Your task to perform on an android device: toggle notifications settings in the gmail app Image 0: 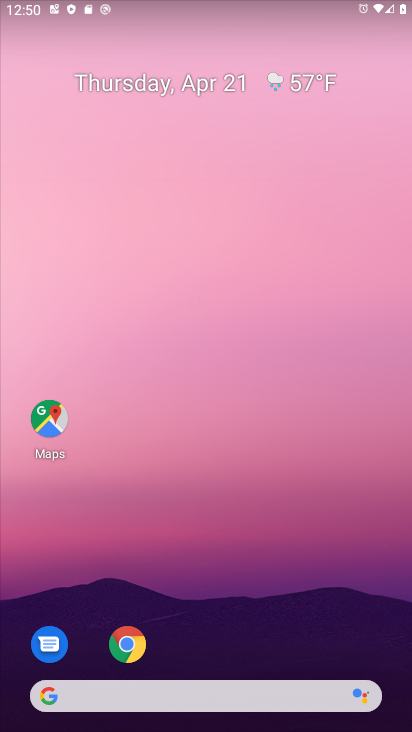
Step 0: drag from (189, 670) to (292, 18)
Your task to perform on an android device: toggle notifications settings in the gmail app Image 1: 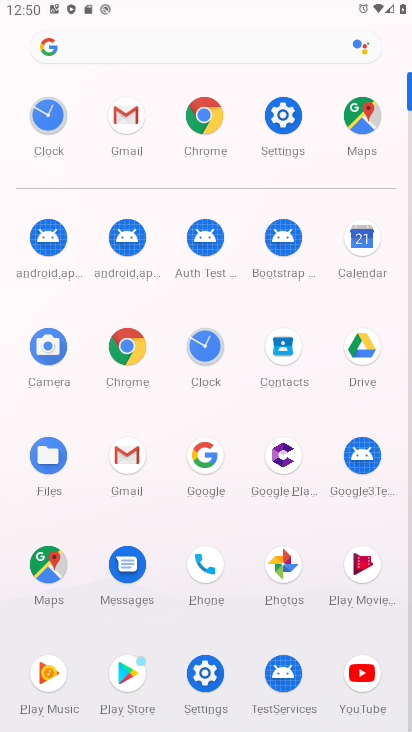
Step 1: click (125, 462)
Your task to perform on an android device: toggle notifications settings in the gmail app Image 2: 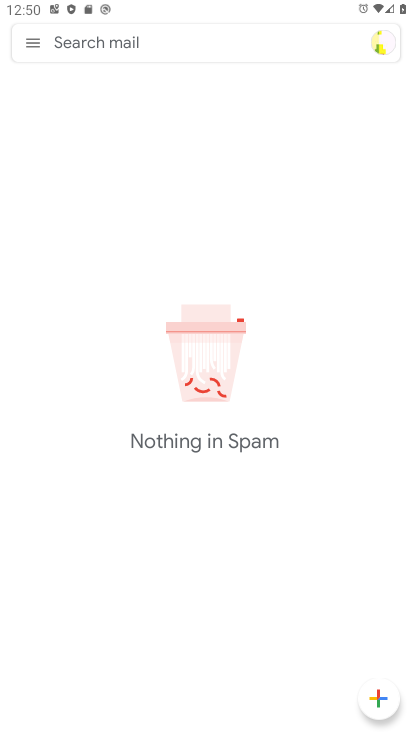
Step 2: click (39, 38)
Your task to perform on an android device: toggle notifications settings in the gmail app Image 3: 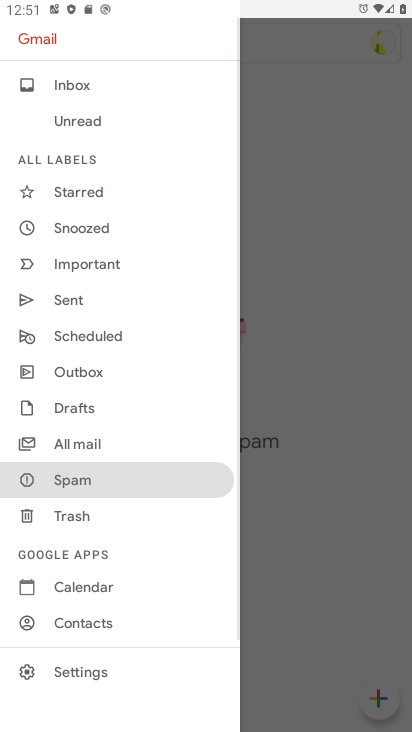
Step 3: click (81, 663)
Your task to perform on an android device: toggle notifications settings in the gmail app Image 4: 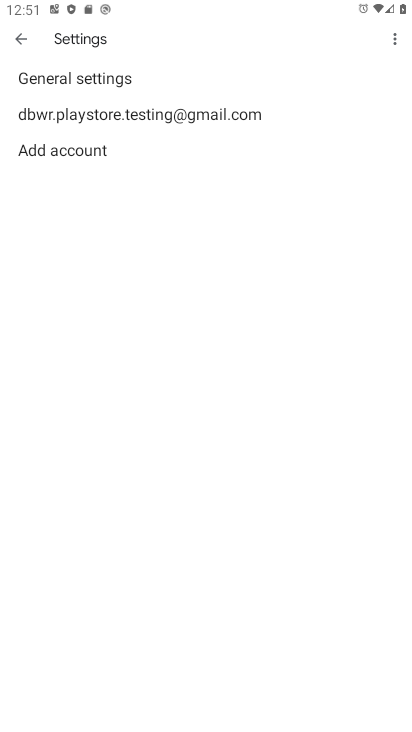
Step 4: click (41, 83)
Your task to perform on an android device: toggle notifications settings in the gmail app Image 5: 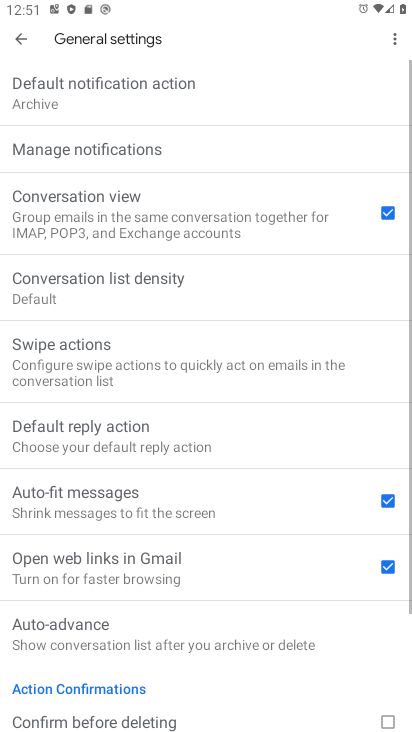
Step 5: click (81, 157)
Your task to perform on an android device: toggle notifications settings in the gmail app Image 6: 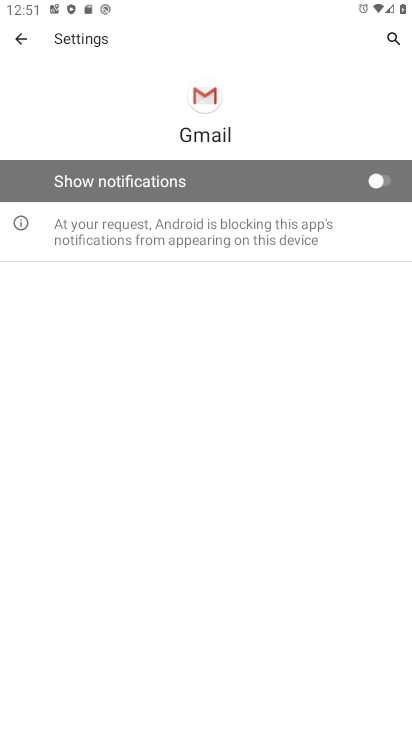
Step 6: click (378, 171)
Your task to perform on an android device: toggle notifications settings in the gmail app Image 7: 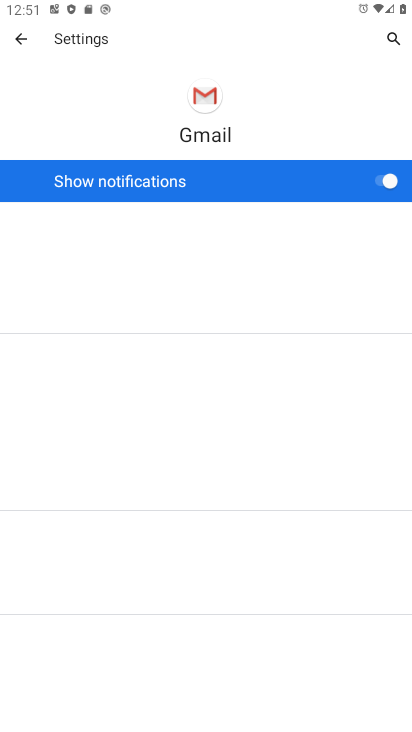
Step 7: task complete